Your task to perform on an android device: Open ESPN.com Image 0: 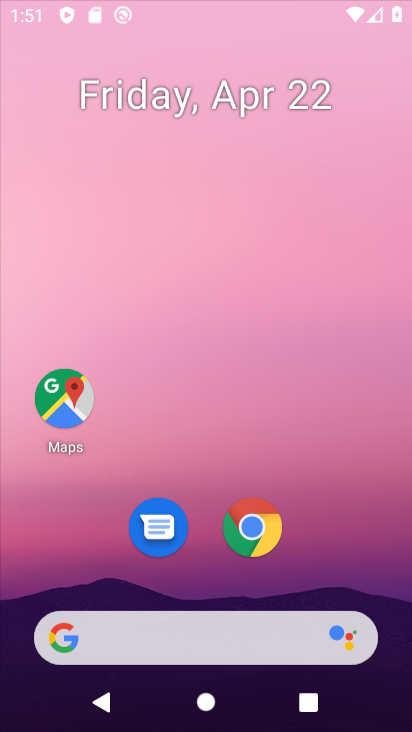
Step 0: click (247, 45)
Your task to perform on an android device: Open ESPN.com Image 1: 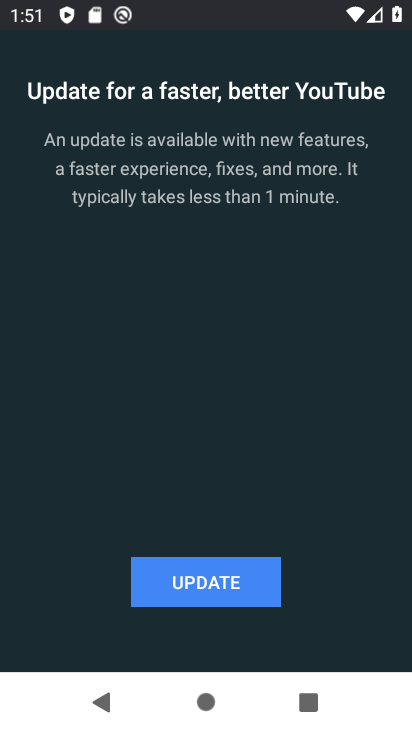
Step 1: press back button
Your task to perform on an android device: Open ESPN.com Image 2: 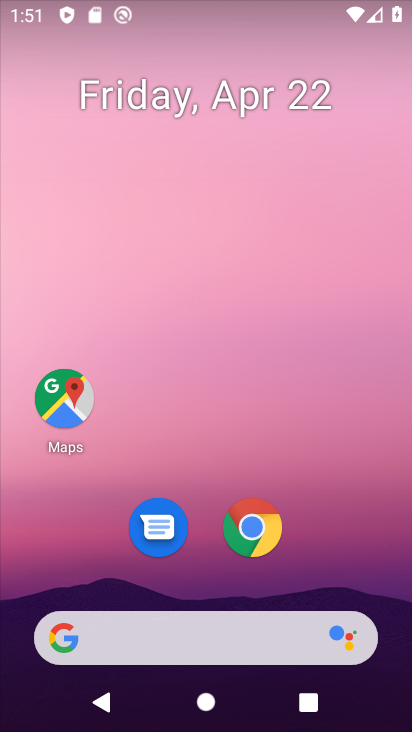
Step 2: drag from (373, 595) to (244, 43)
Your task to perform on an android device: Open ESPN.com Image 3: 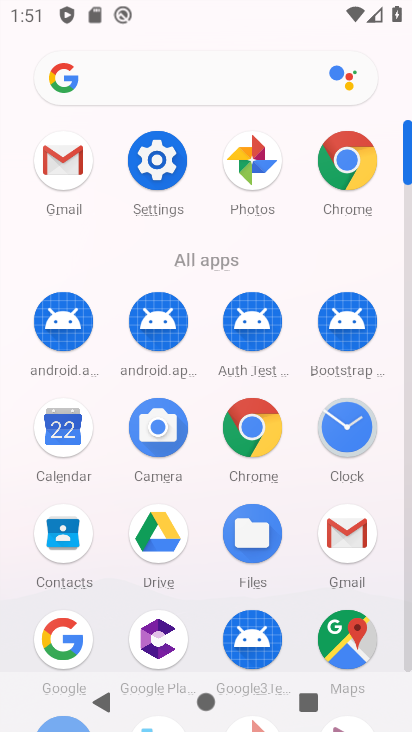
Step 3: click (274, 421)
Your task to perform on an android device: Open ESPN.com Image 4: 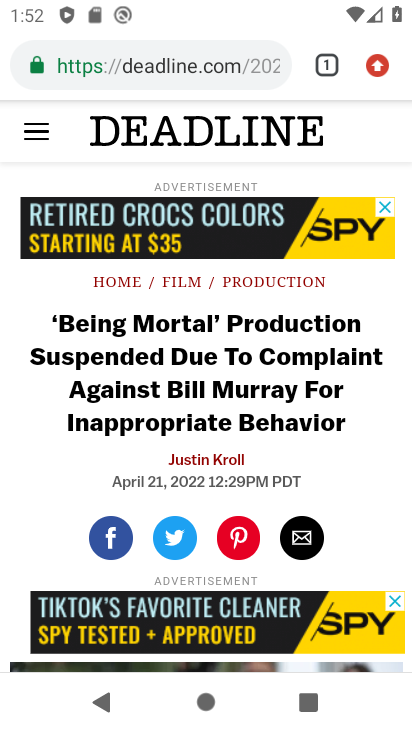
Step 4: press back button
Your task to perform on an android device: Open ESPN.com Image 5: 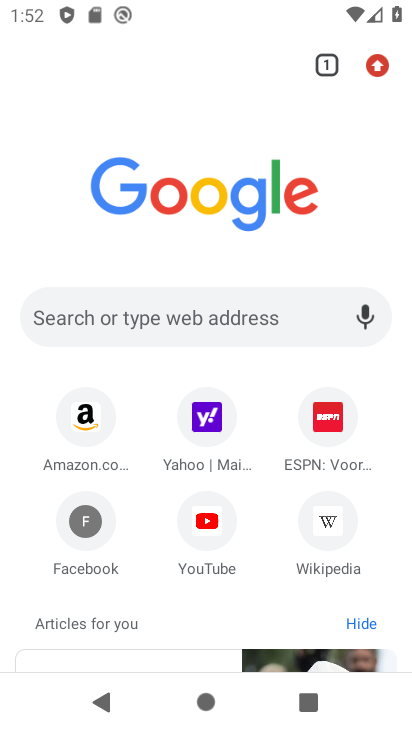
Step 5: click (336, 398)
Your task to perform on an android device: Open ESPN.com Image 6: 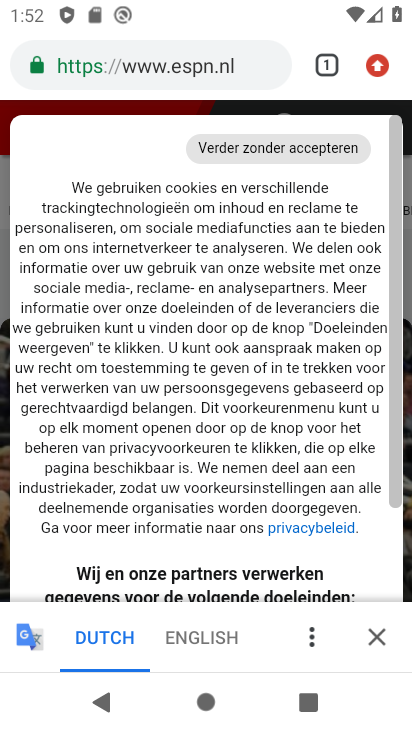
Step 6: task complete